Your task to perform on an android device: Open notification settings Image 0: 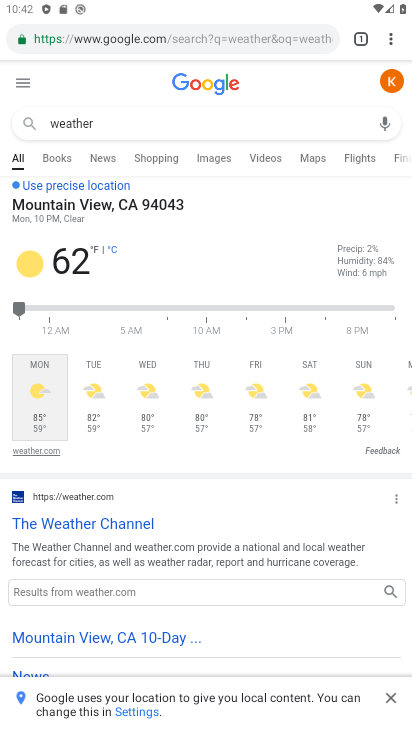
Step 0: press home button
Your task to perform on an android device: Open notification settings Image 1: 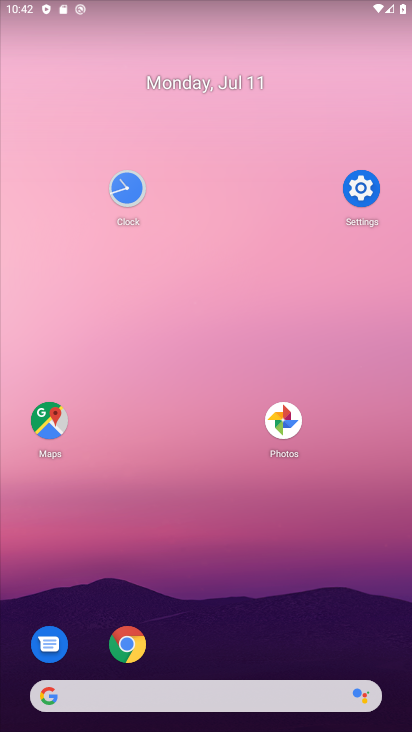
Step 1: click (368, 201)
Your task to perform on an android device: Open notification settings Image 2: 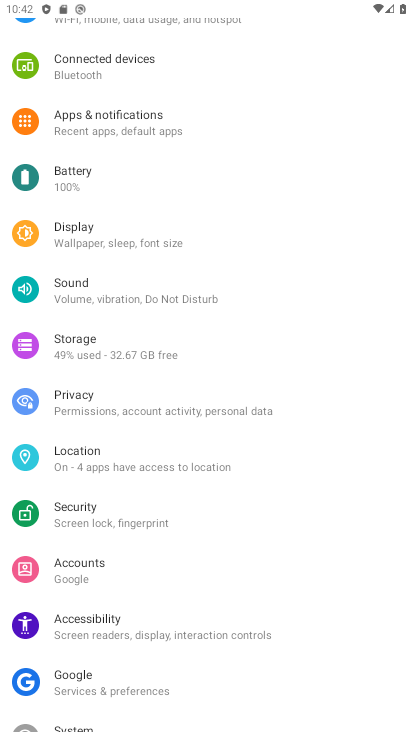
Step 2: click (195, 132)
Your task to perform on an android device: Open notification settings Image 3: 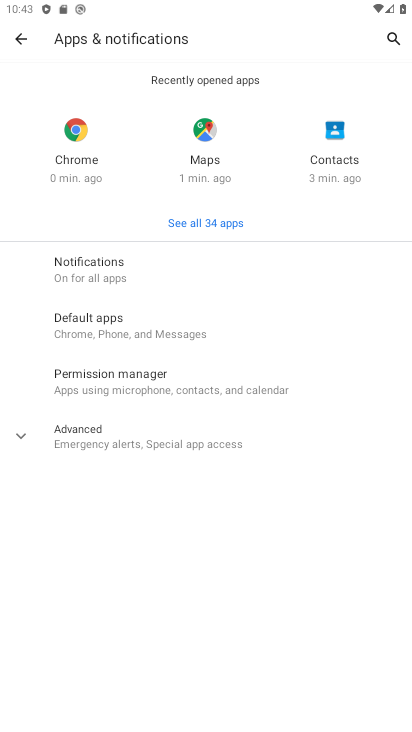
Step 3: task complete